Your task to perform on an android device: What is the news today? Image 0: 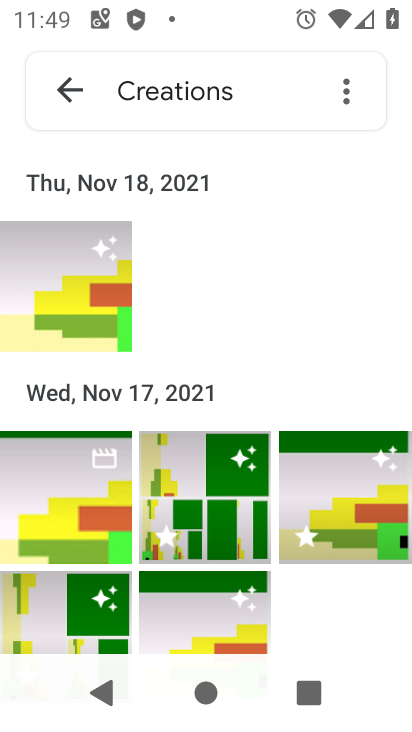
Step 0: press home button
Your task to perform on an android device: What is the news today? Image 1: 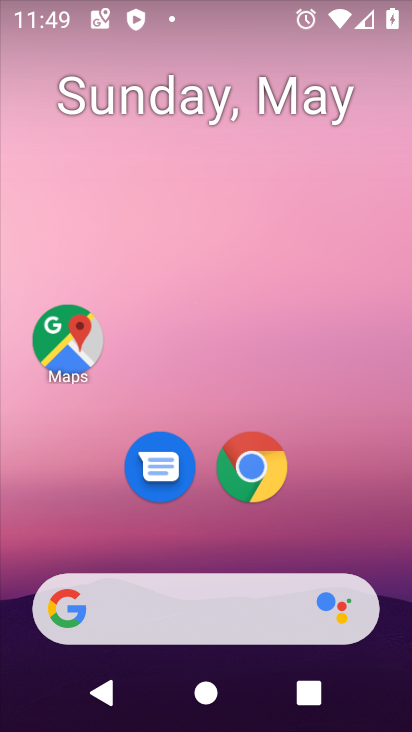
Step 1: click (137, 605)
Your task to perform on an android device: What is the news today? Image 2: 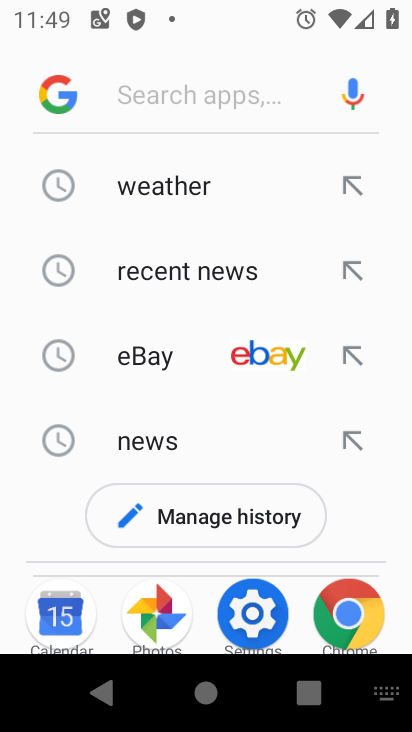
Step 2: click (142, 95)
Your task to perform on an android device: What is the news today? Image 3: 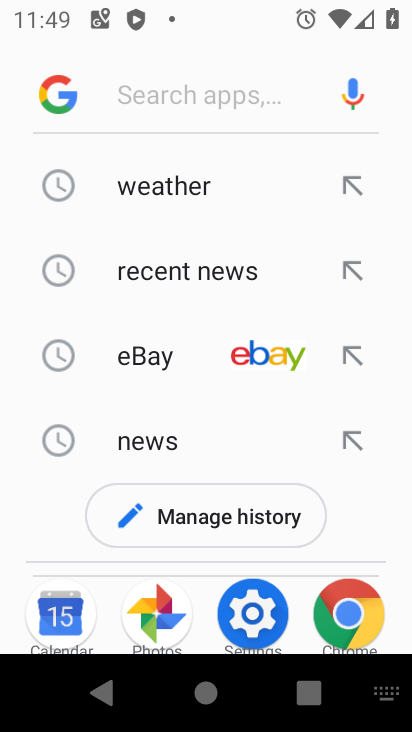
Step 3: type "news today"
Your task to perform on an android device: What is the news today? Image 4: 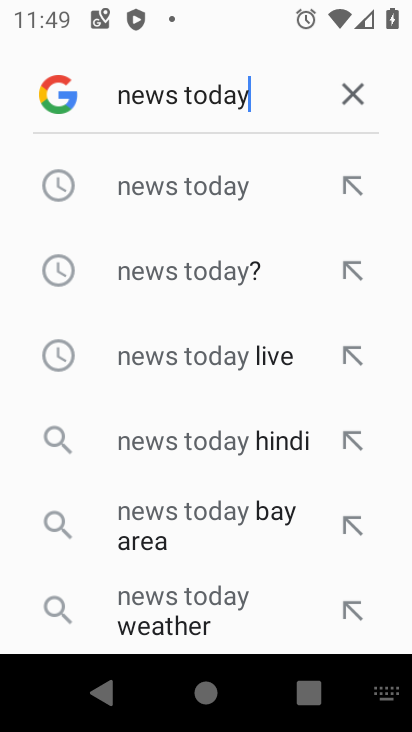
Step 4: click (178, 185)
Your task to perform on an android device: What is the news today? Image 5: 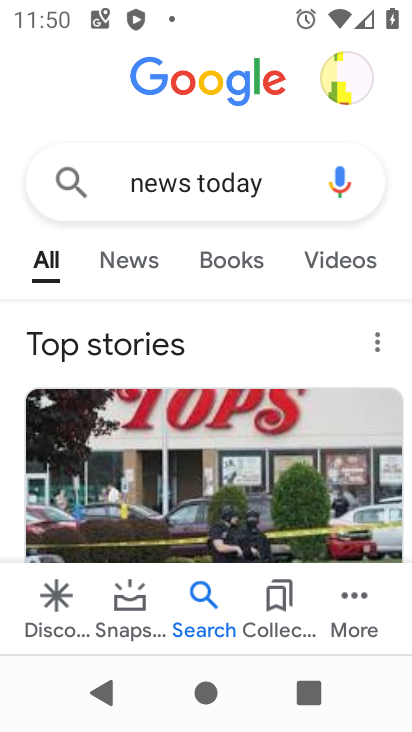
Step 5: click (125, 262)
Your task to perform on an android device: What is the news today? Image 6: 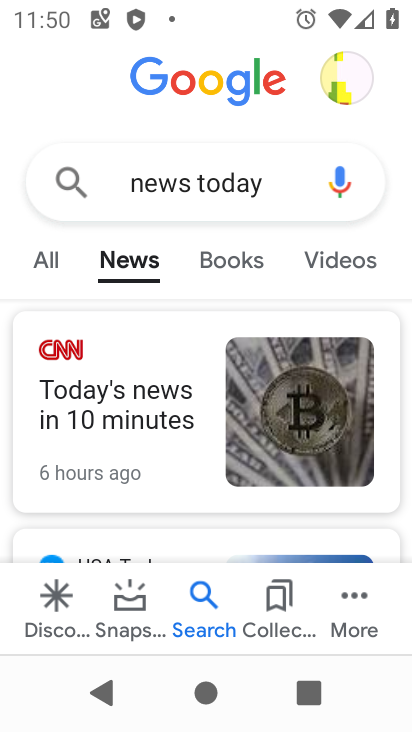
Step 6: drag from (189, 448) to (190, 194)
Your task to perform on an android device: What is the news today? Image 7: 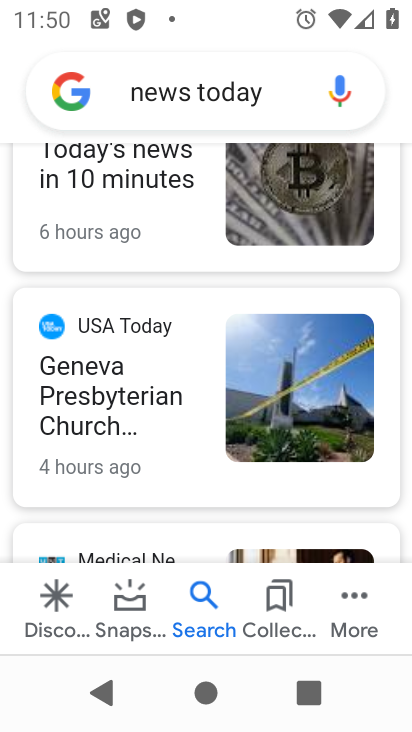
Step 7: drag from (119, 421) to (152, 146)
Your task to perform on an android device: What is the news today? Image 8: 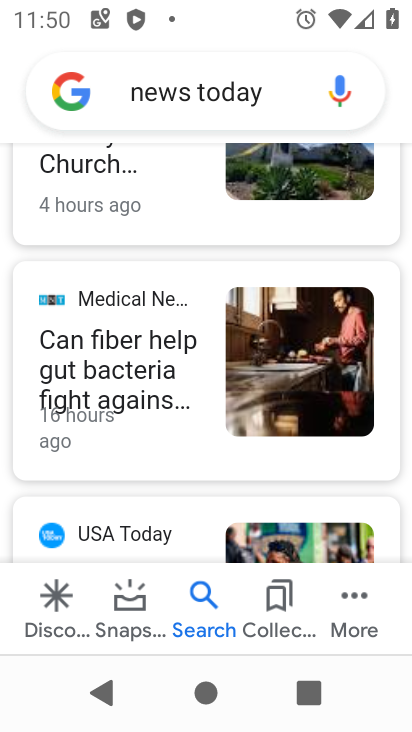
Step 8: click (105, 166)
Your task to perform on an android device: What is the news today? Image 9: 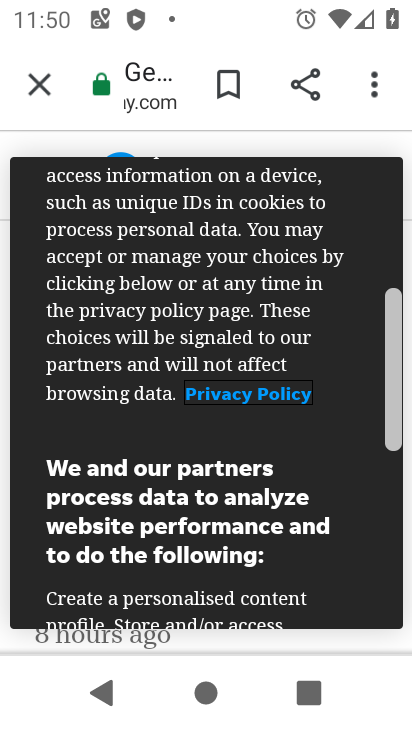
Step 9: task complete